Your task to perform on an android device: Look up the best gaming chair on Best Buy. Image 0: 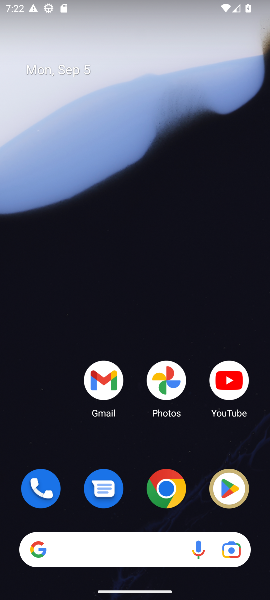
Step 0: click (174, 491)
Your task to perform on an android device: Look up the best gaming chair on Best Buy. Image 1: 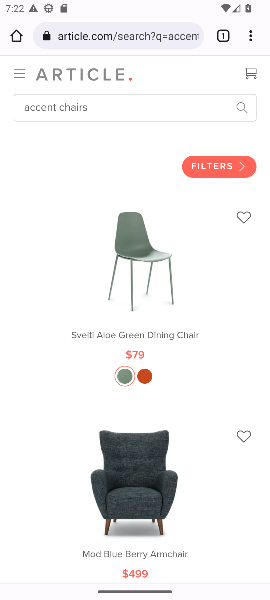
Step 1: click (161, 38)
Your task to perform on an android device: Look up the best gaming chair on Best Buy. Image 2: 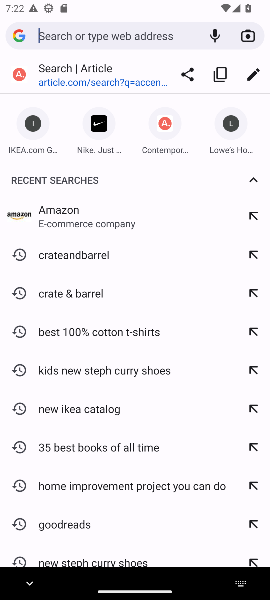
Step 2: type "best buy"
Your task to perform on an android device: Look up the best gaming chair on Best Buy. Image 3: 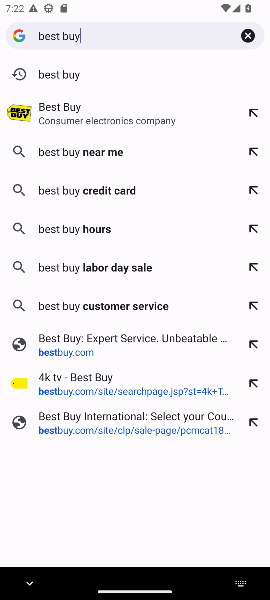
Step 3: press enter
Your task to perform on an android device: Look up the best gaming chair on Best Buy. Image 4: 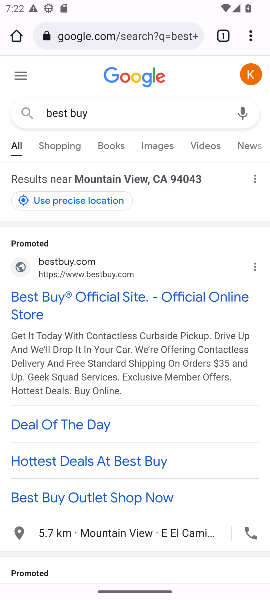
Step 4: click (102, 294)
Your task to perform on an android device: Look up the best gaming chair on Best Buy. Image 5: 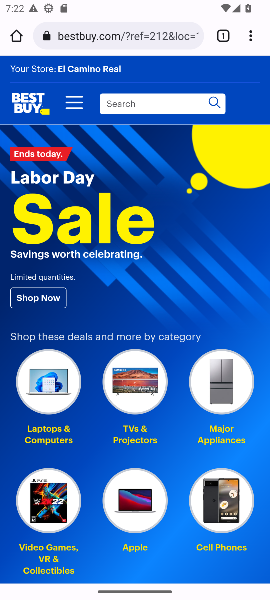
Step 5: click (160, 103)
Your task to perform on an android device: Look up the best gaming chair on Best Buy. Image 6: 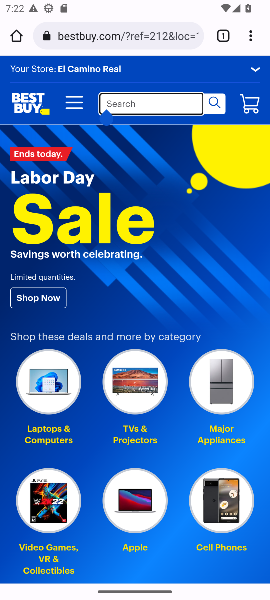
Step 6: click (145, 106)
Your task to perform on an android device: Look up the best gaming chair on Best Buy. Image 7: 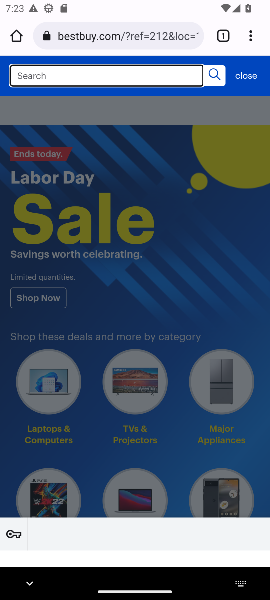
Step 7: type "best gaming chair"
Your task to perform on an android device: Look up the best gaming chair on Best Buy. Image 8: 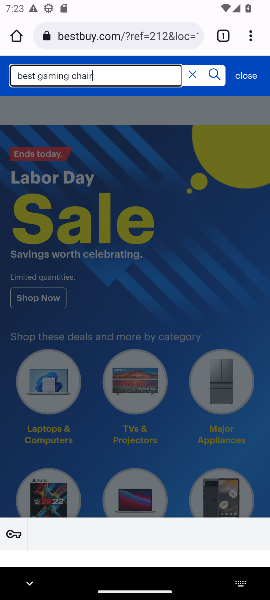
Step 8: press enter
Your task to perform on an android device: Look up the best gaming chair on Best Buy. Image 9: 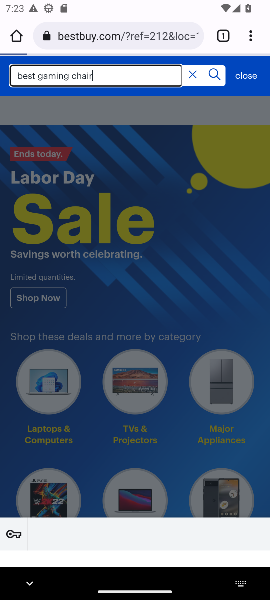
Step 9: click (214, 76)
Your task to perform on an android device: Look up the best gaming chair on Best Buy. Image 10: 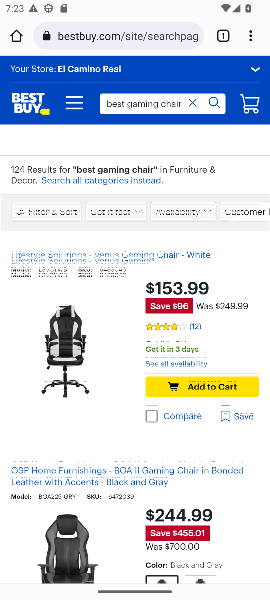
Step 10: click (58, 206)
Your task to perform on an android device: Look up the best gaming chair on Best Buy. Image 11: 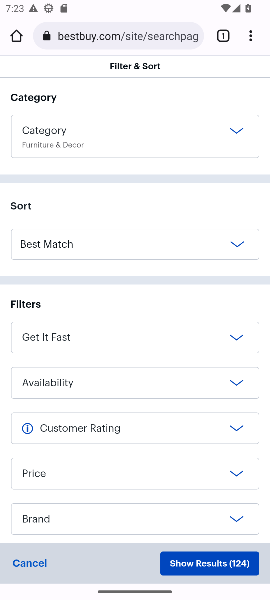
Step 11: click (112, 141)
Your task to perform on an android device: Look up the best gaming chair on Best Buy. Image 12: 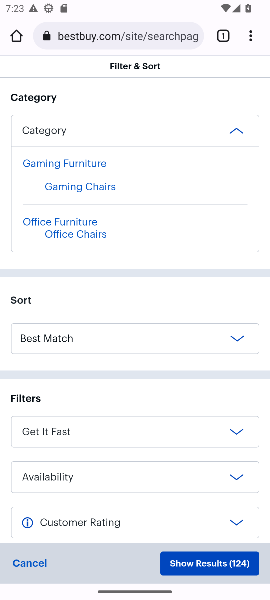
Step 12: click (112, 141)
Your task to perform on an android device: Look up the best gaming chair on Best Buy. Image 13: 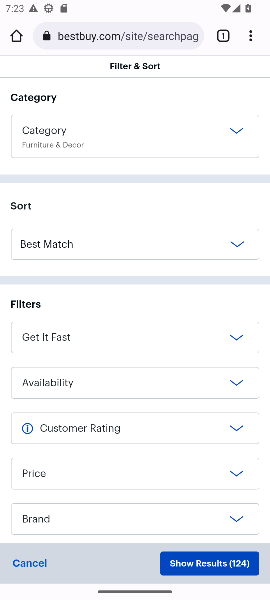
Step 13: click (121, 242)
Your task to perform on an android device: Look up the best gaming chair on Best Buy. Image 14: 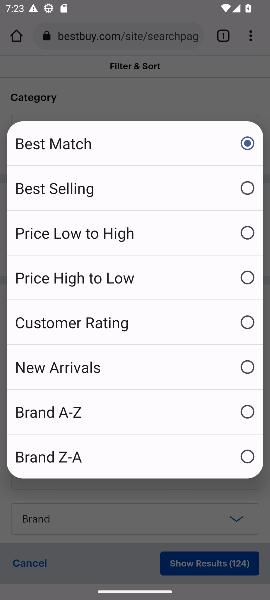
Step 14: click (152, 184)
Your task to perform on an android device: Look up the best gaming chair on Best Buy. Image 15: 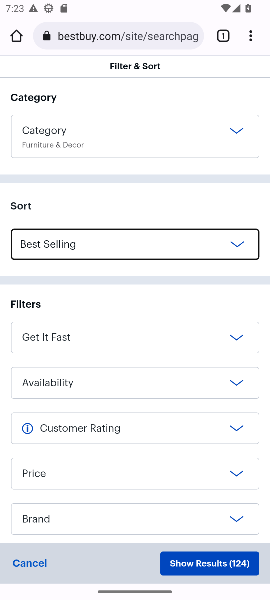
Step 15: click (179, 288)
Your task to perform on an android device: Look up the best gaming chair on Best Buy. Image 16: 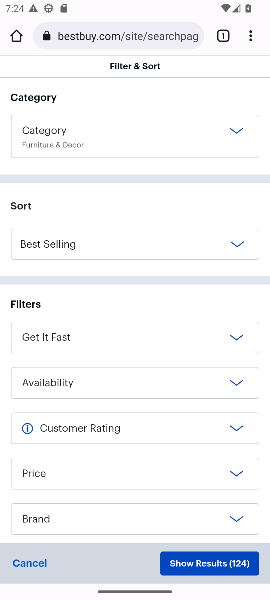
Step 16: drag from (190, 281) to (230, 132)
Your task to perform on an android device: Look up the best gaming chair on Best Buy. Image 17: 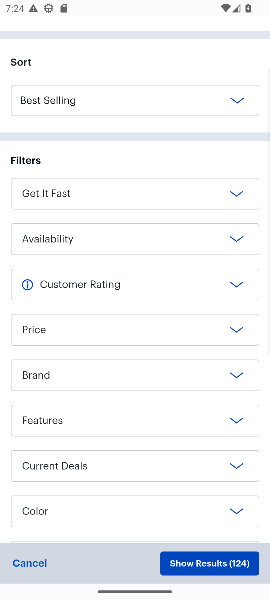
Step 17: drag from (209, 351) to (242, 157)
Your task to perform on an android device: Look up the best gaming chair on Best Buy. Image 18: 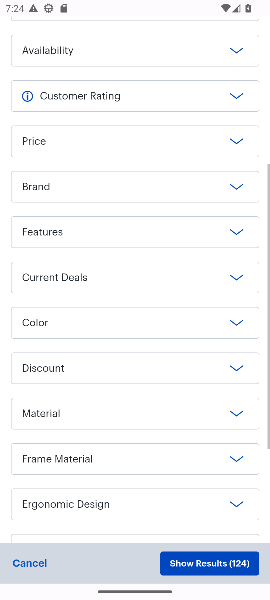
Step 18: drag from (216, 423) to (265, 469)
Your task to perform on an android device: Look up the best gaming chair on Best Buy. Image 19: 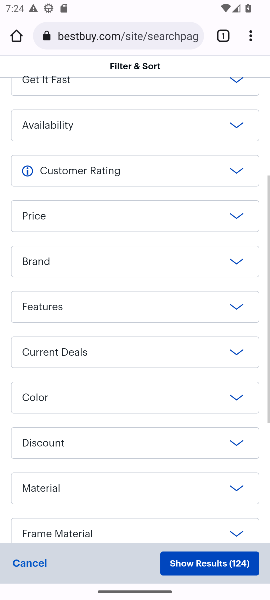
Step 19: drag from (223, 180) to (265, 439)
Your task to perform on an android device: Look up the best gaming chair on Best Buy. Image 20: 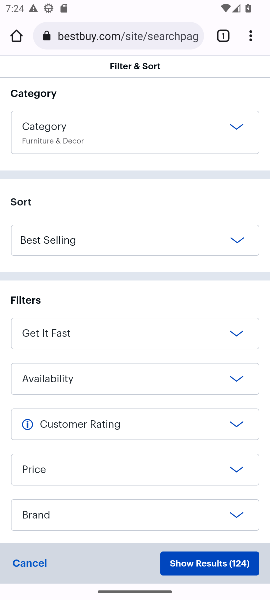
Step 20: drag from (133, 149) to (196, 396)
Your task to perform on an android device: Look up the best gaming chair on Best Buy. Image 21: 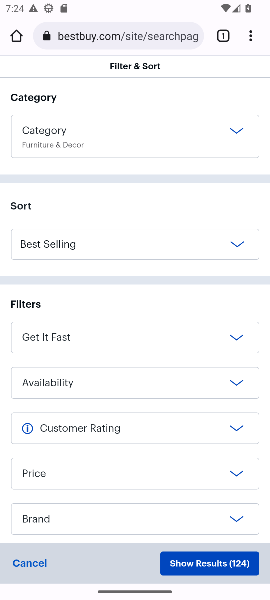
Step 21: click (195, 566)
Your task to perform on an android device: Look up the best gaming chair on Best Buy. Image 22: 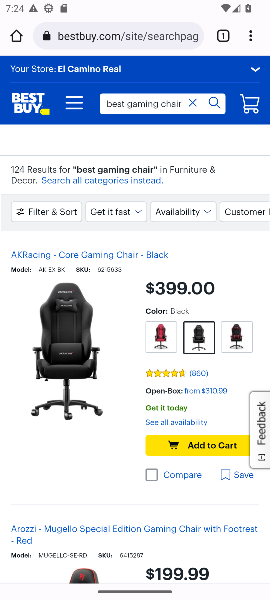
Step 22: task complete